Your task to perform on an android device: turn on sleep mode Image 0: 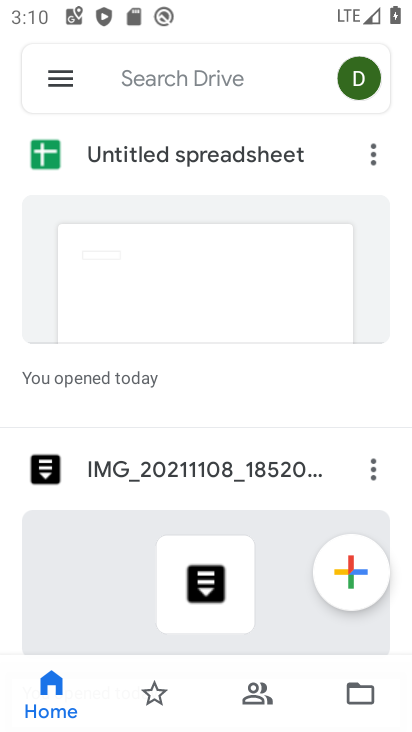
Step 0: press home button
Your task to perform on an android device: turn on sleep mode Image 1: 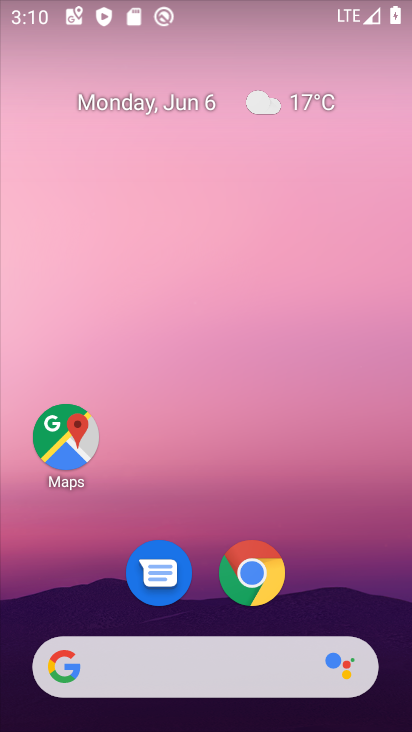
Step 1: drag from (356, 579) to (377, 197)
Your task to perform on an android device: turn on sleep mode Image 2: 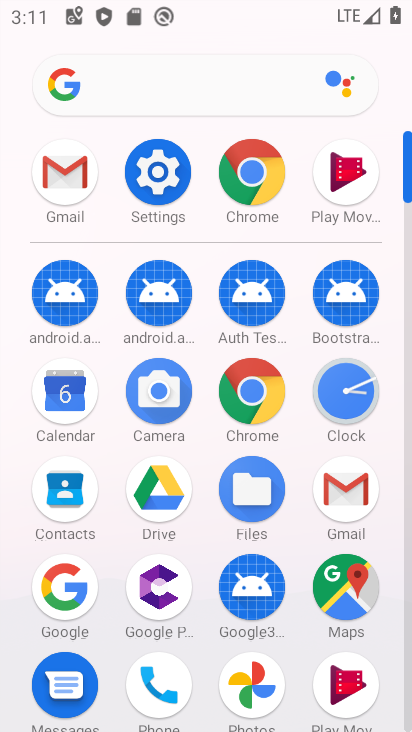
Step 2: click (172, 193)
Your task to perform on an android device: turn on sleep mode Image 3: 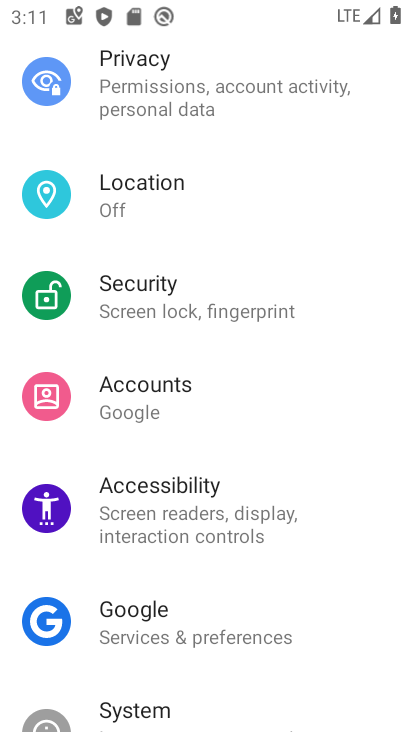
Step 3: drag from (353, 364) to (360, 446)
Your task to perform on an android device: turn on sleep mode Image 4: 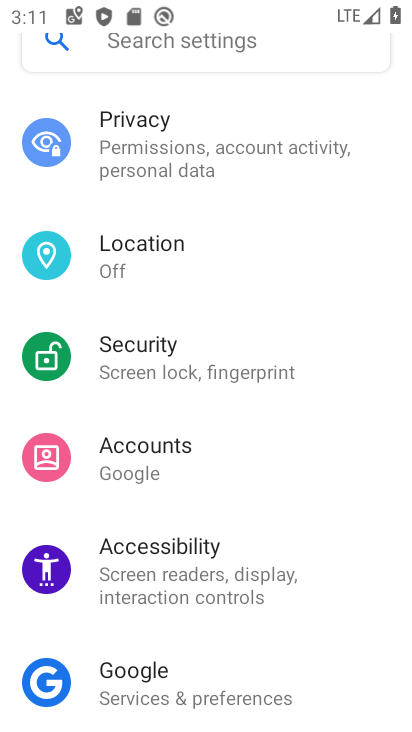
Step 4: drag from (355, 290) to (360, 385)
Your task to perform on an android device: turn on sleep mode Image 5: 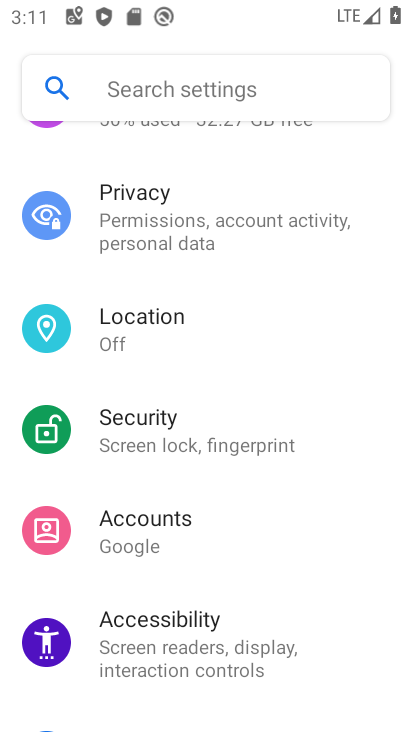
Step 5: drag from (357, 277) to (352, 379)
Your task to perform on an android device: turn on sleep mode Image 6: 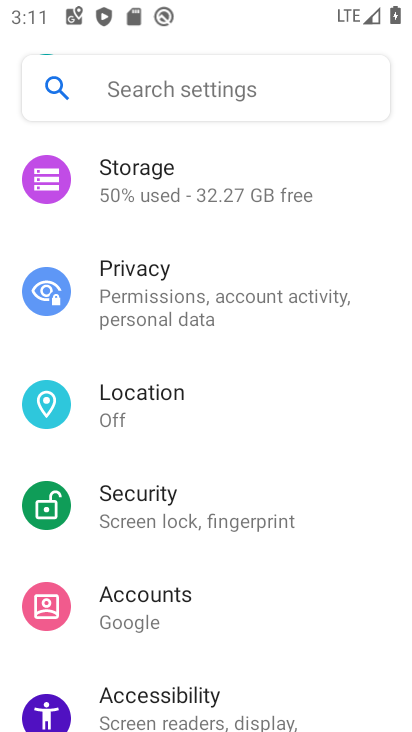
Step 6: drag from (344, 354) to (352, 425)
Your task to perform on an android device: turn on sleep mode Image 7: 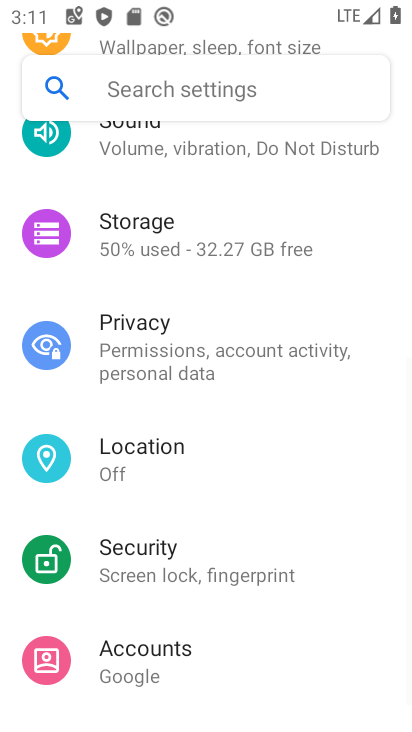
Step 7: drag from (353, 302) to (363, 373)
Your task to perform on an android device: turn on sleep mode Image 8: 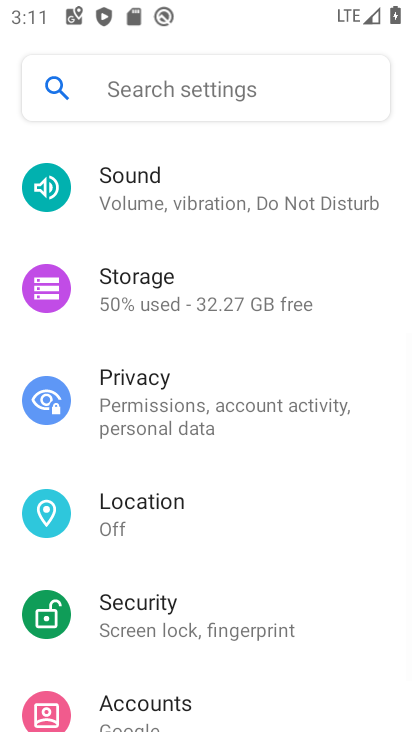
Step 8: drag from (356, 280) to (358, 386)
Your task to perform on an android device: turn on sleep mode Image 9: 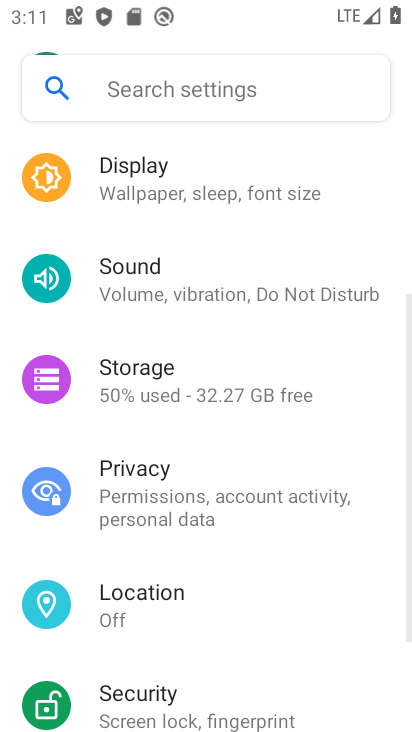
Step 9: drag from (349, 244) to (348, 364)
Your task to perform on an android device: turn on sleep mode Image 10: 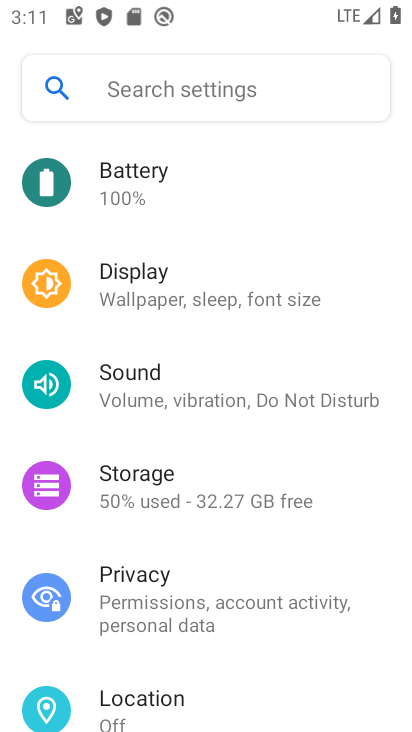
Step 10: click (248, 306)
Your task to perform on an android device: turn on sleep mode Image 11: 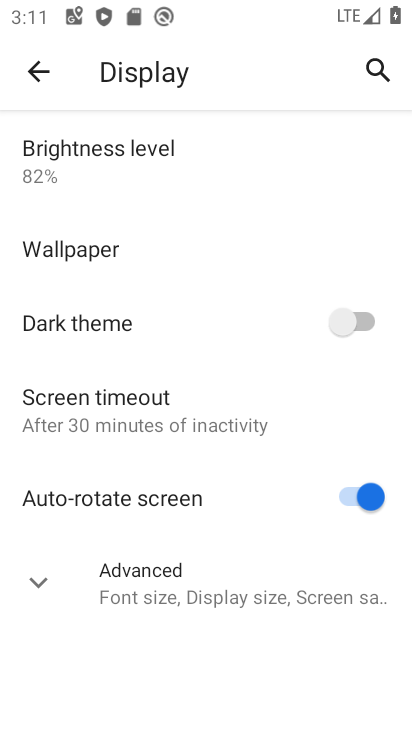
Step 11: click (168, 578)
Your task to perform on an android device: turn on sleep mode Image 12: 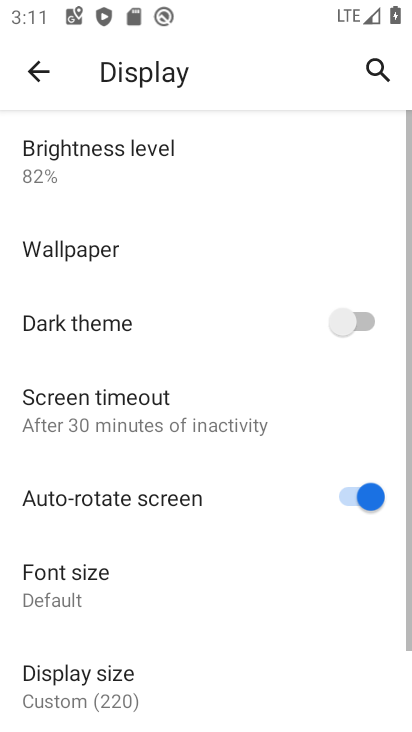
Step 12: task complete